Your task to perform on an android device: Play the last video I watched on Youtube Image 0: 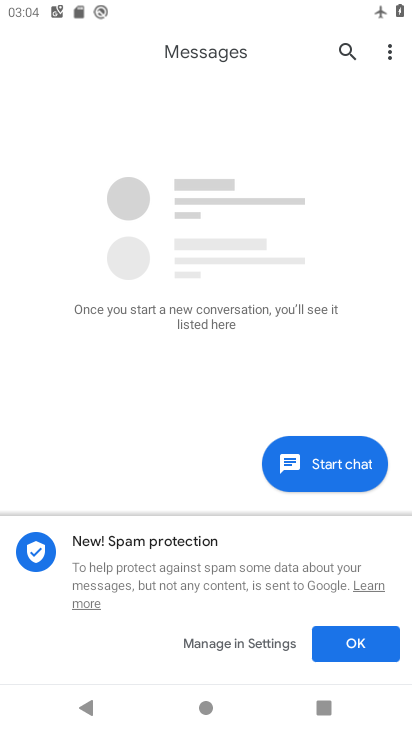
Step 0: press home button
Your task to perform on an android device: Play the last video I watched on Youtube Image 1: 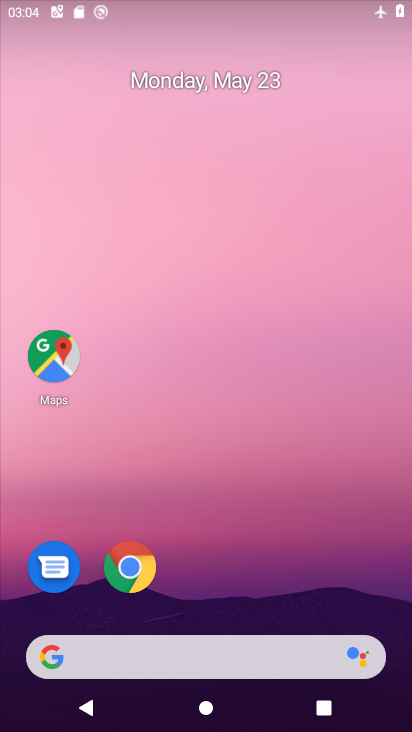
Step 1: drag from (244, 576) to (215, 66)
Your task to perform on an android device: Play the last video I watched on Youtube Image 2: 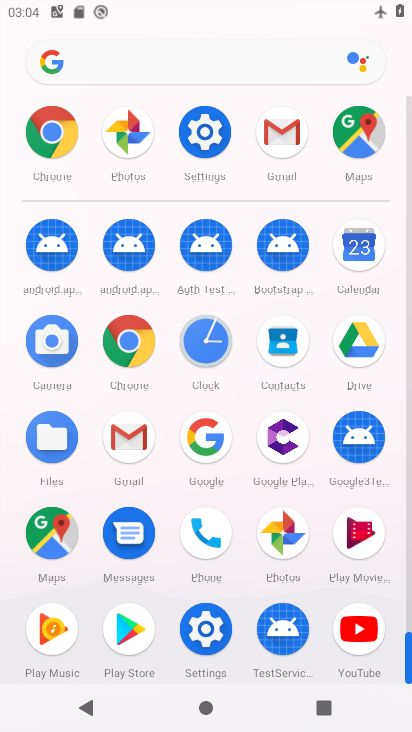
Step 2: click (357, 637)
Your task to perform on an android device: Play the last video I watched on Youtube Image 3: 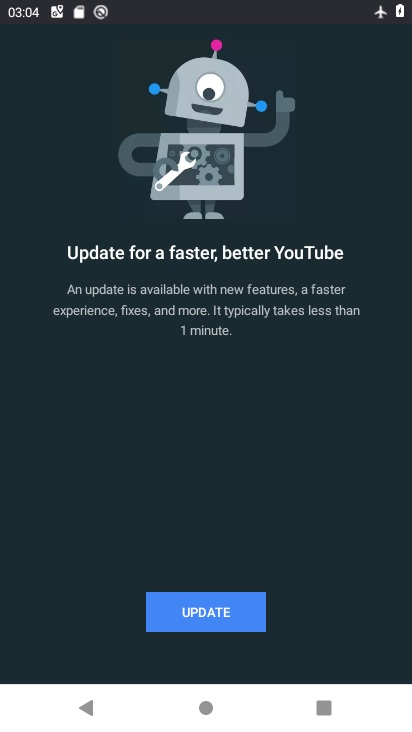
Step 3: click (238, 619)
Your task to perform on an android device: Play the last video I watched on Youtube Image 4: 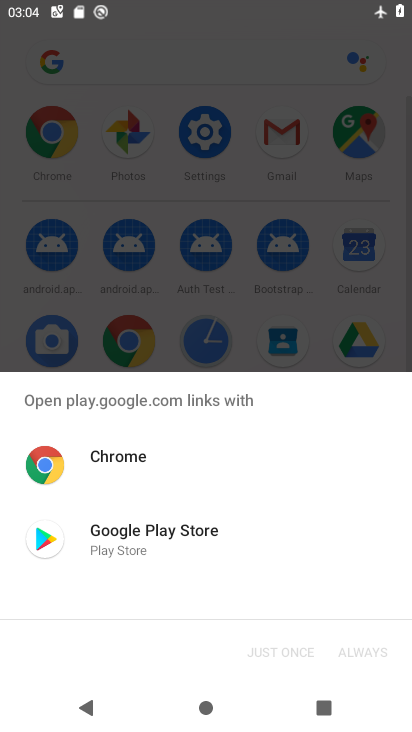
Step 4: click (216, 565)
Your task to perform on an android device: Play the last video I watched on Youtube Image 5: 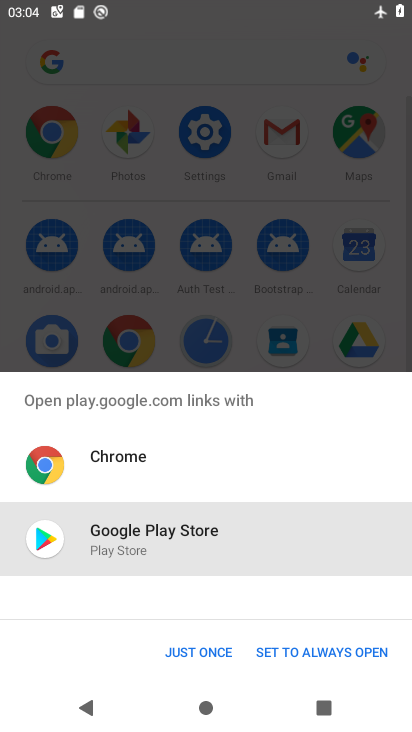
Step 5: click (214, 654)
Your task to perform on an android device: Play the last video I watched on Youtube Image 6: 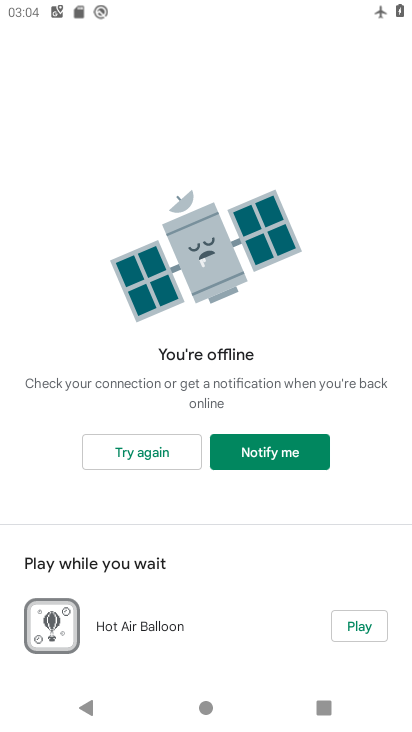
Step 6: click (249, 463)
Your task to perform on an android device: Play the last video I watched on Youtube Image 7: 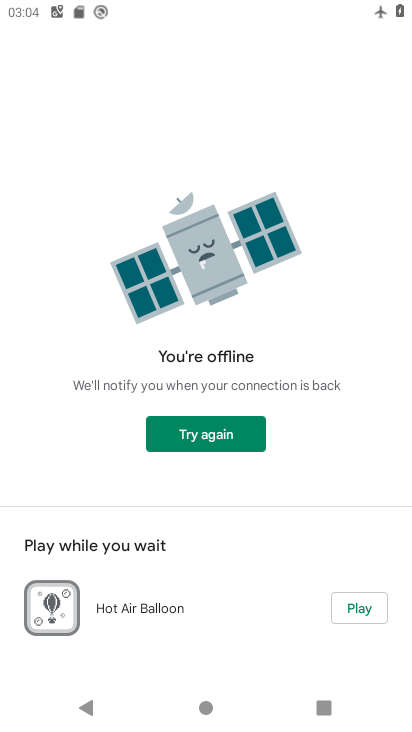
Step 7: click (191, 445)
Your task to perform on an android device: Play the last video I watched on Youtube Image 8: 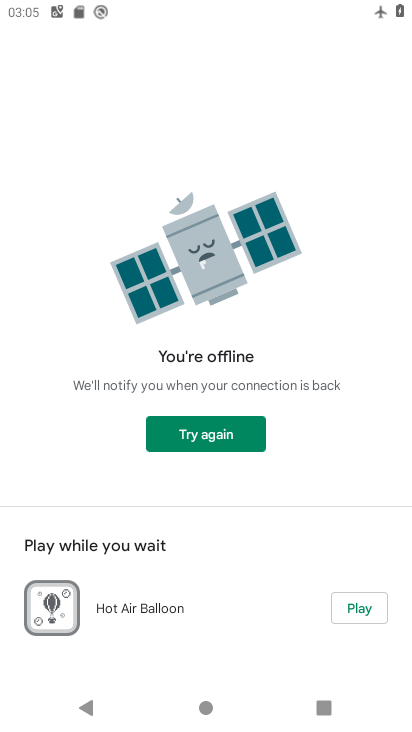
Step 8: task complete